Your task to perform on an android device: open app "Facebook Messenger" (install if not already installed) Image 0: 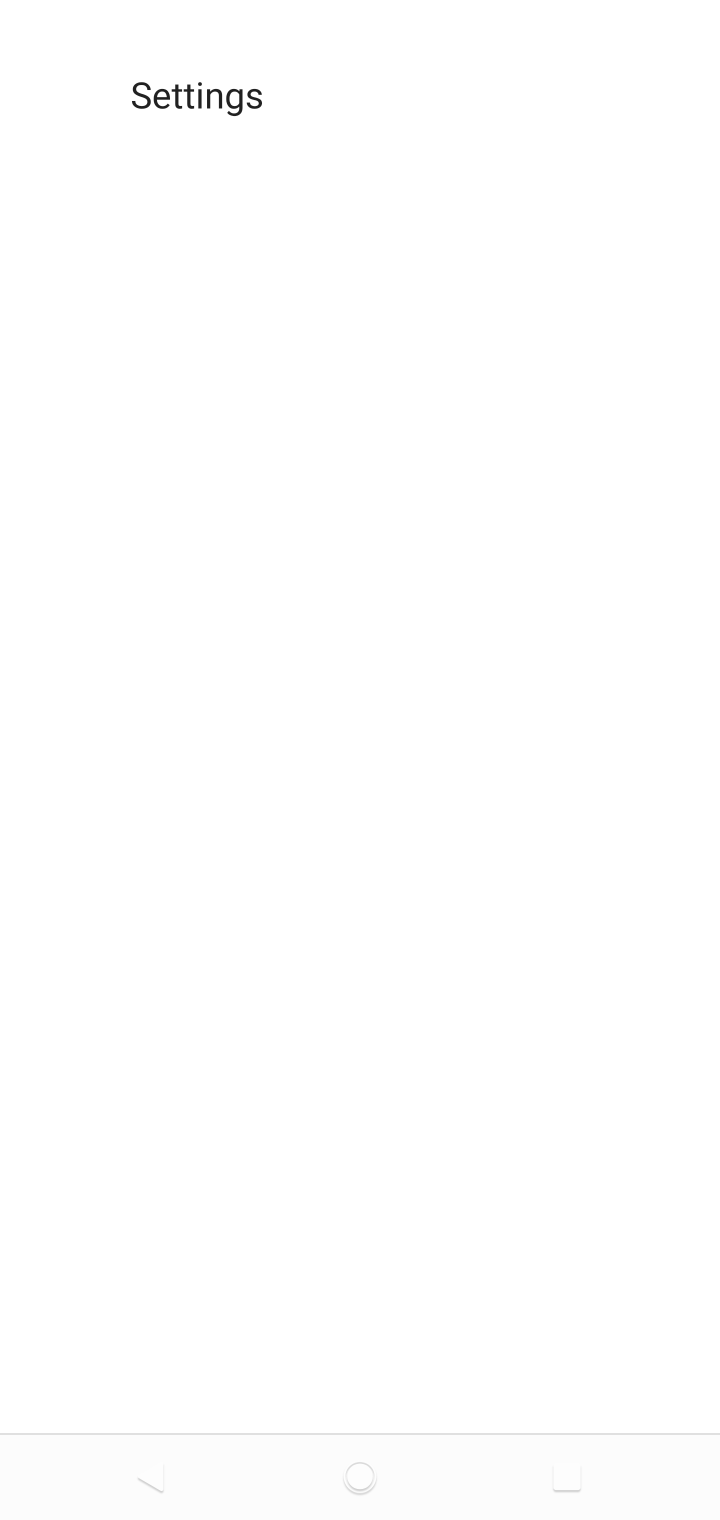
Step 0: press home button
Your task to perform on an android device: open app "Facebook Messenger" (install if not already installed) Image 1: 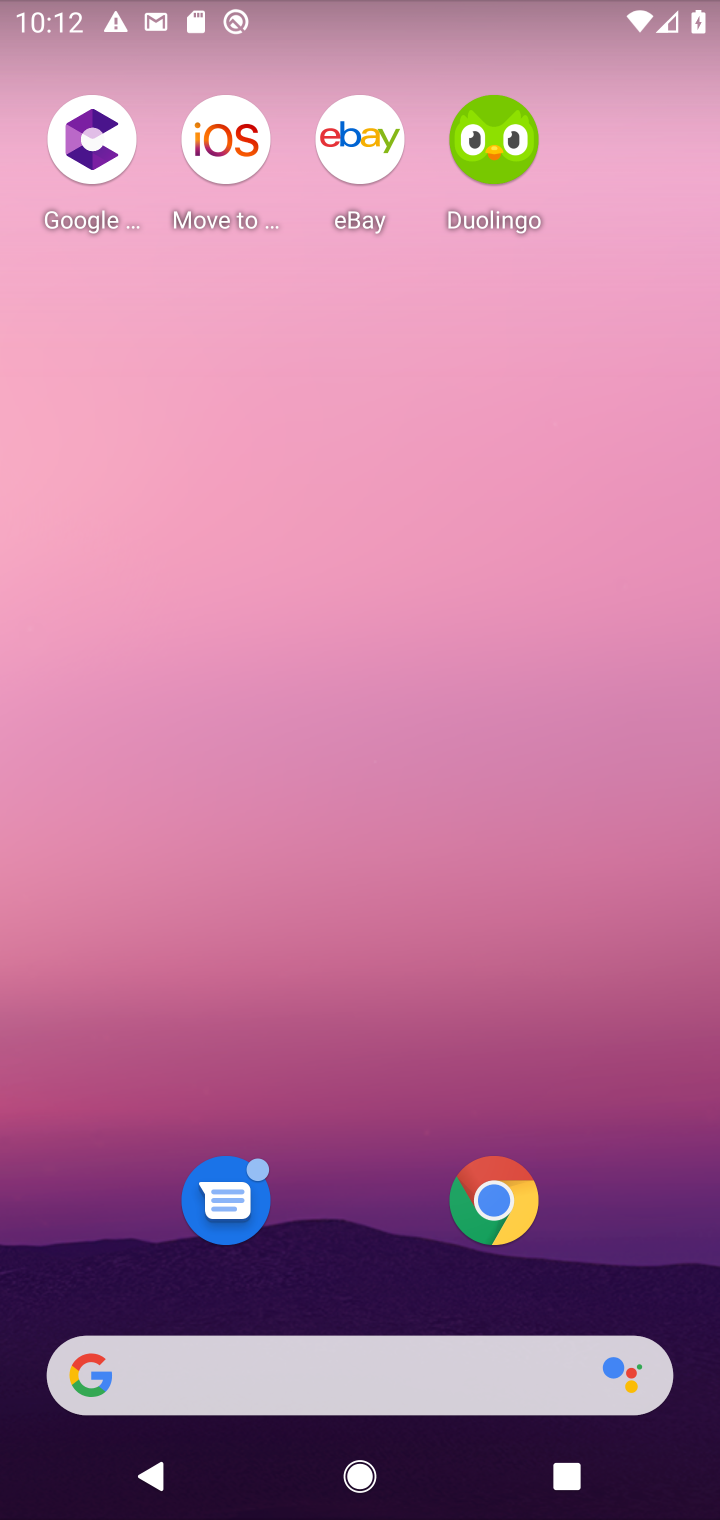
Step 1: press home button
Your task to perform on an android device: open app "Facebook Messenger" (install if not already installed) Image 2: 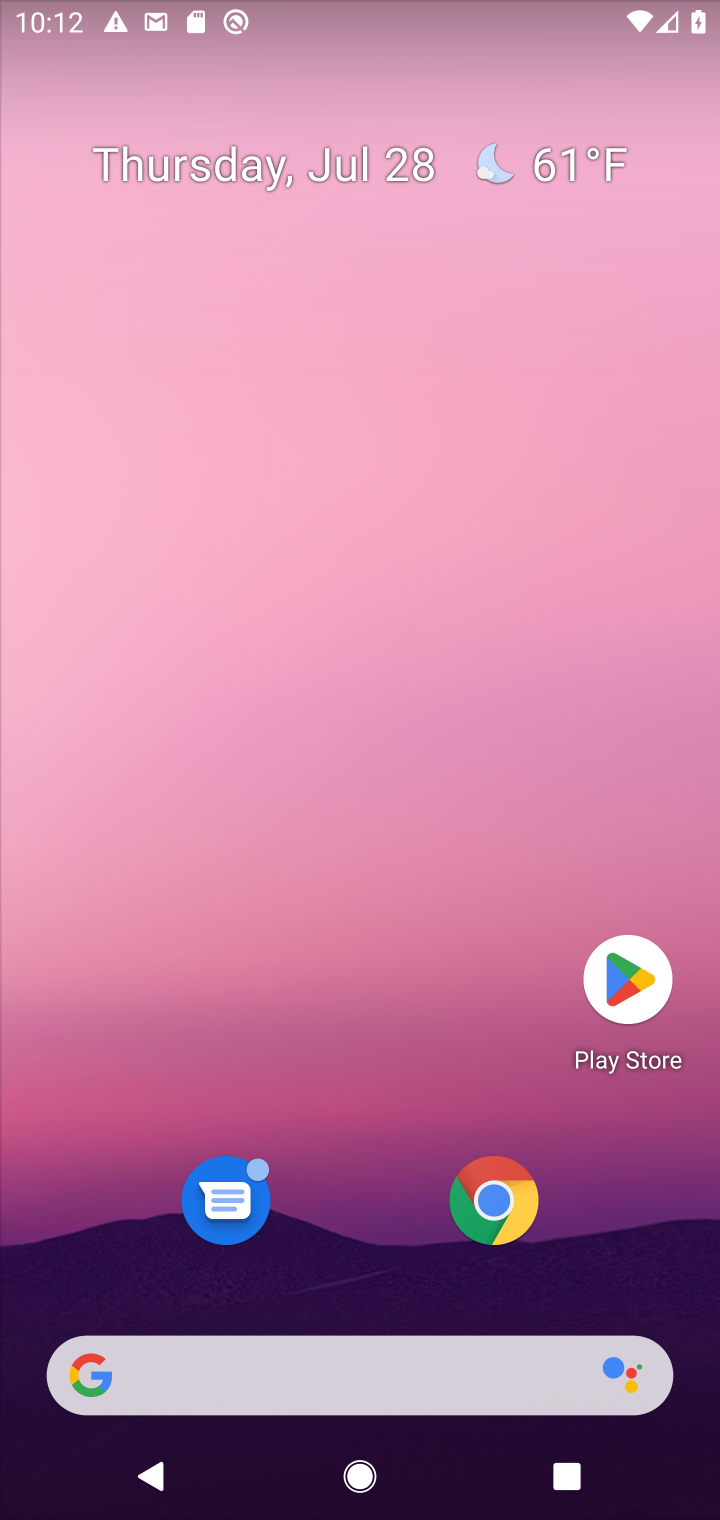
Step 2: click (619, 983)
Your task to perform on an android device: open app "Facebook Messenger" (install if not already installed) Image 3: 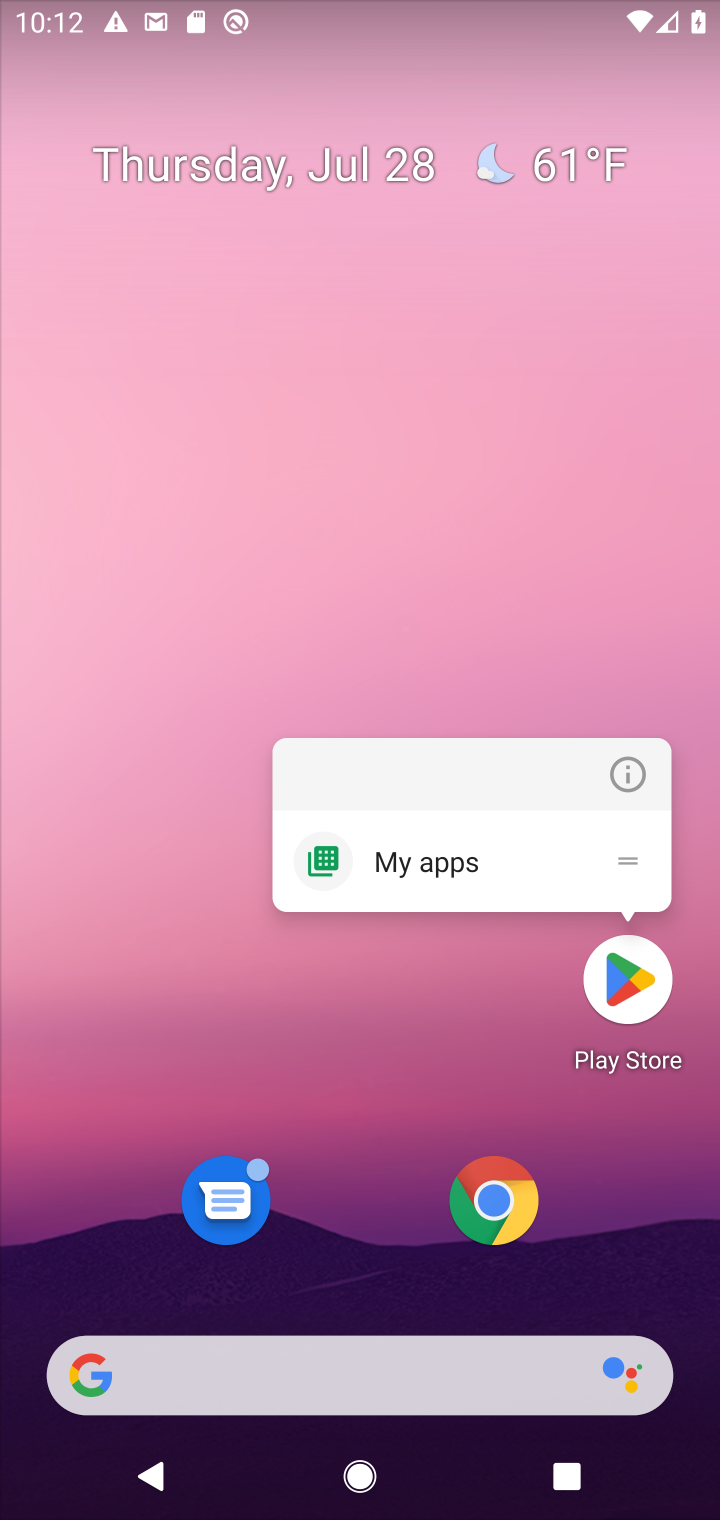
Step 3: click (639, 989)
Your task to perform on an android device: open app "Facebook Messenger" (install if not already installed) Image 4: 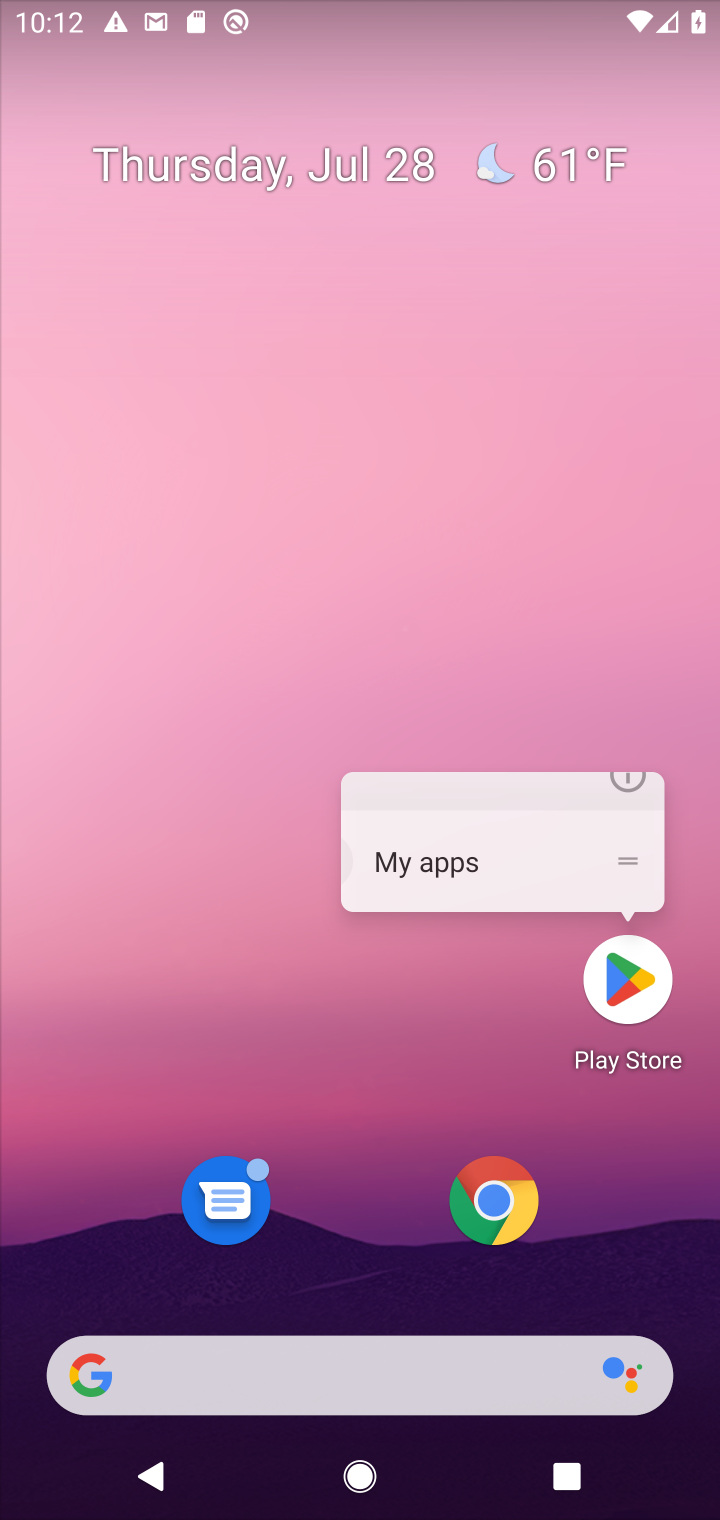
Step 4: click (639, 996)
Your task to perform on an android device: open app "Facebook Messenger" (install if not already installed) Image 5: 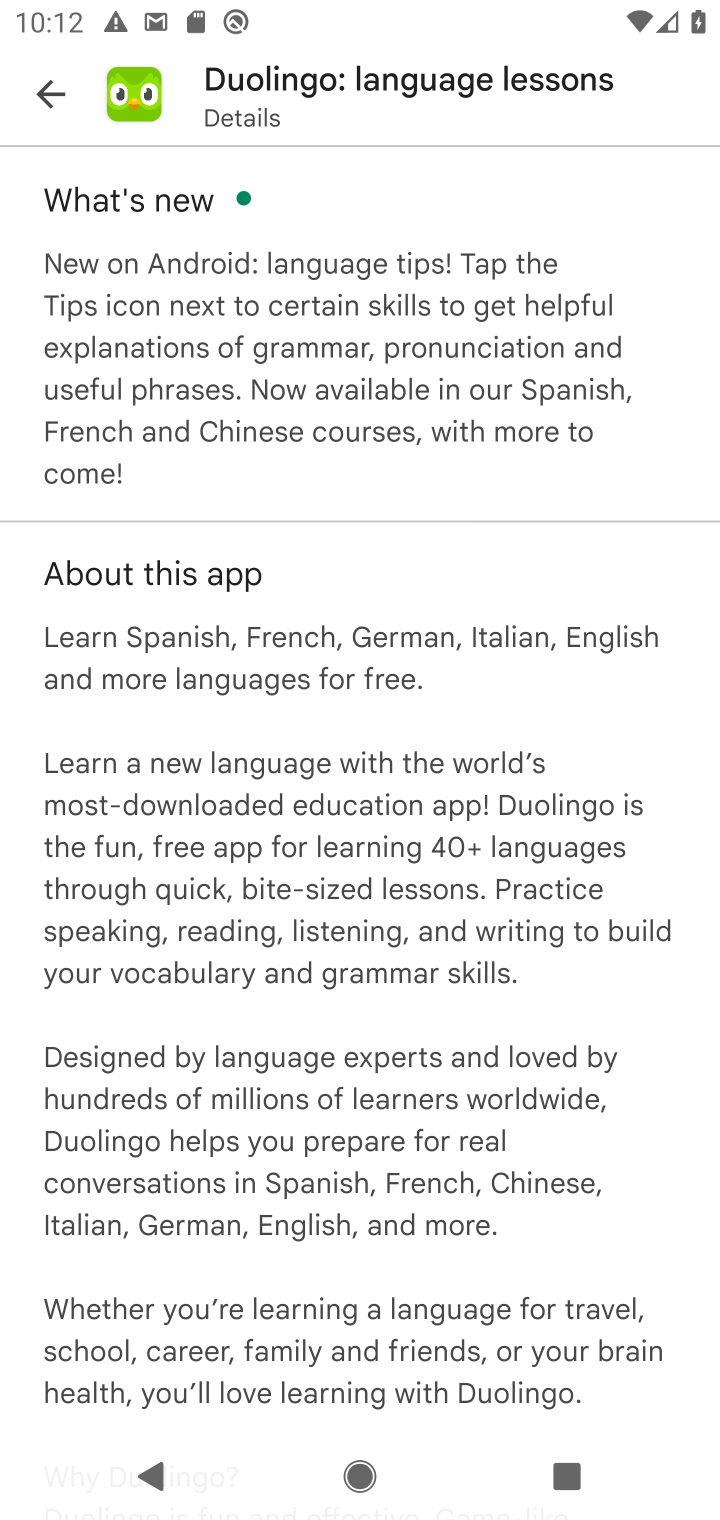
Step 5: click (34, 92)
Your task to perform on an android device: open app "Facebook Messenger" (install if not already installed) Image 6: 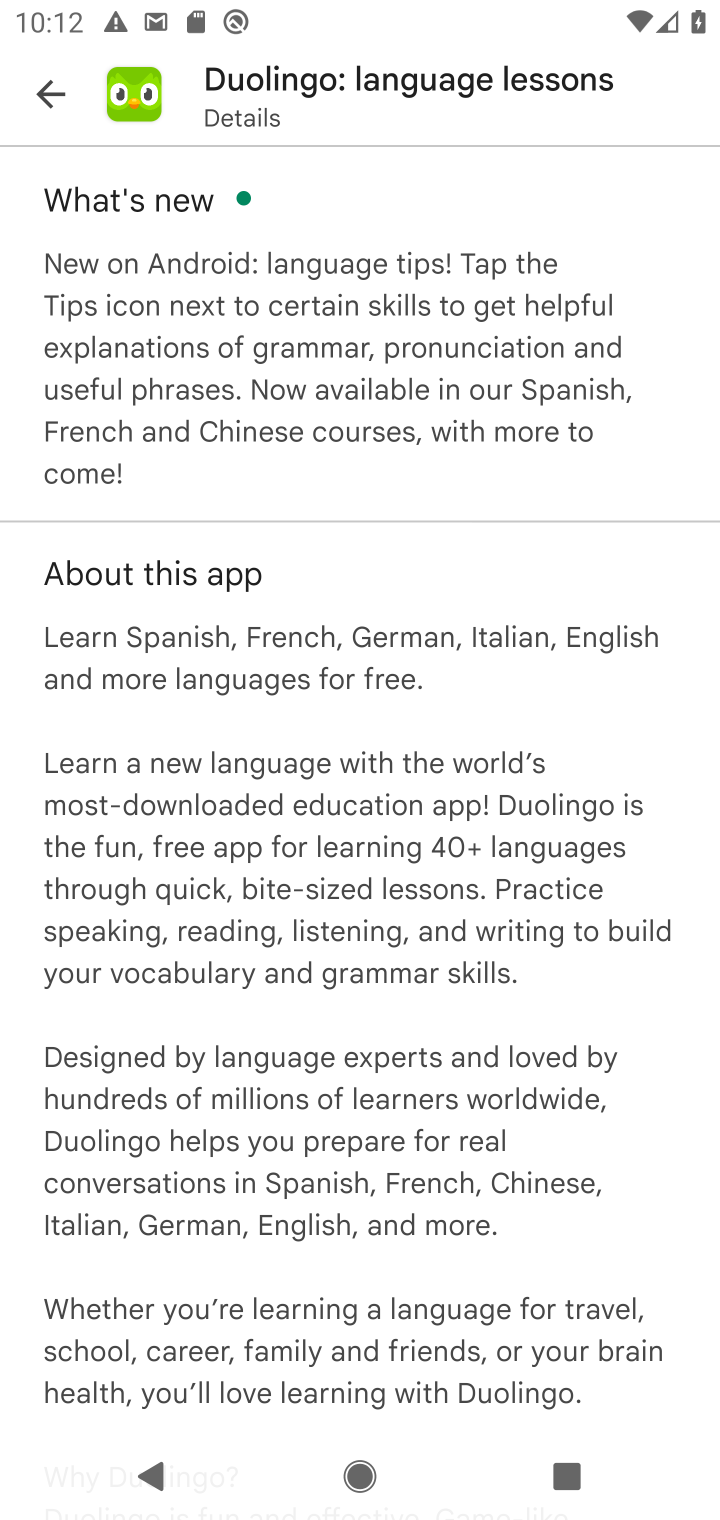
Step 6: click (48, 73)
Your task to perform on an android device: open app "Facebook Messenger" (install if not already installed) Image 7: 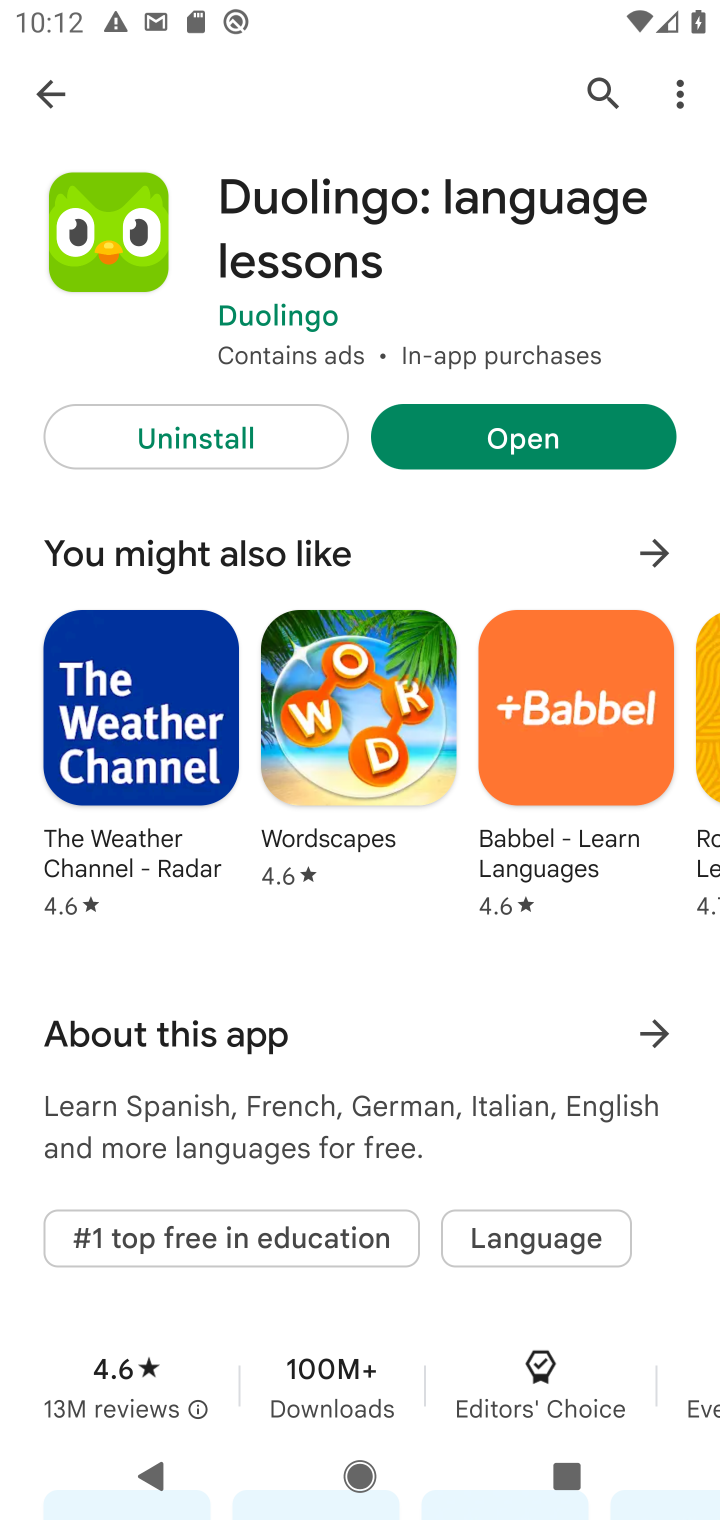
Step 7: click (597, 87)
Your task to perform on an android device: open app "Facebook Messenger" (install if not already installed) Image 8: 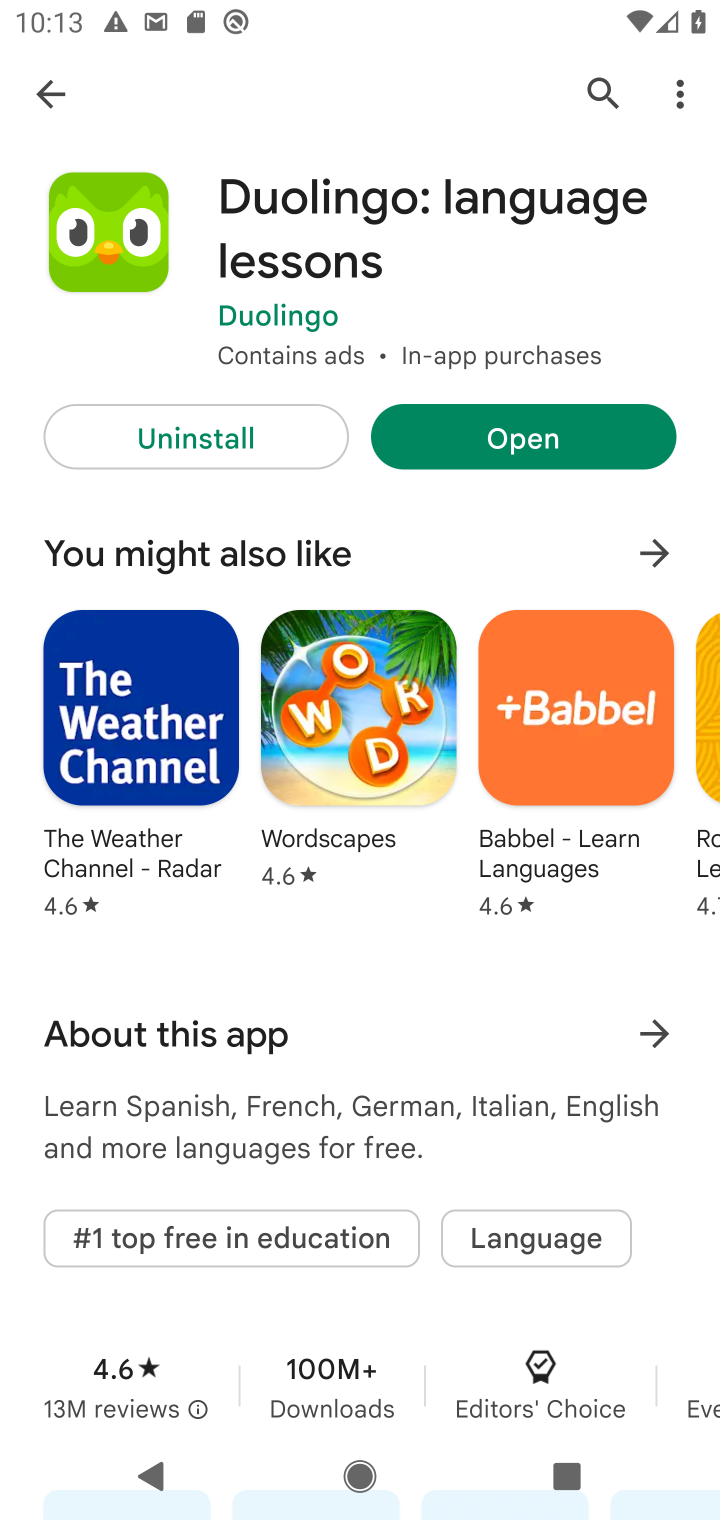
Step 8: click (582, 74)
Your task to perform on an android device: open app "Facebook Messenger" (install if not already installed) Image 9: 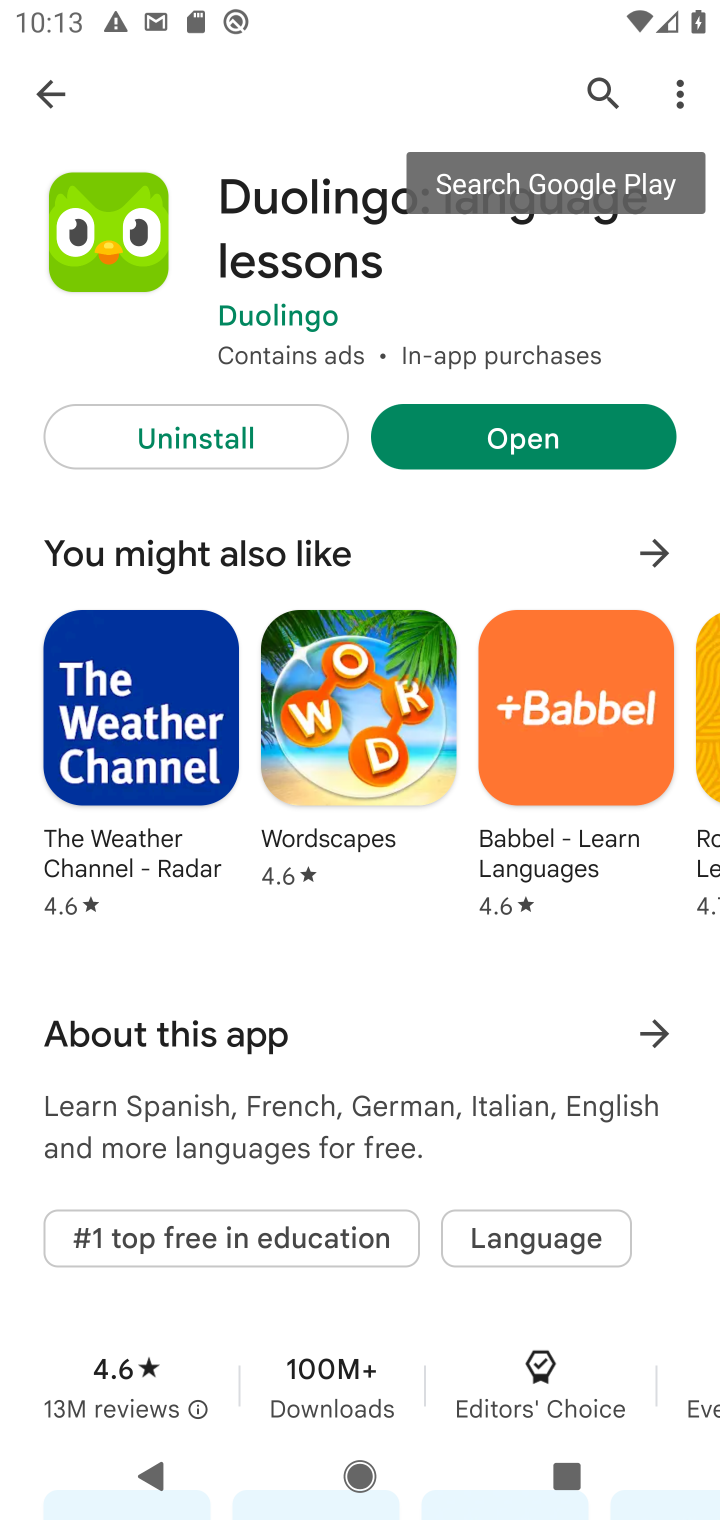
Step 9: click (594, 85)
Your task to perform on an android device: open app "Facebook Messenger" (install if not already installed) Image 10: 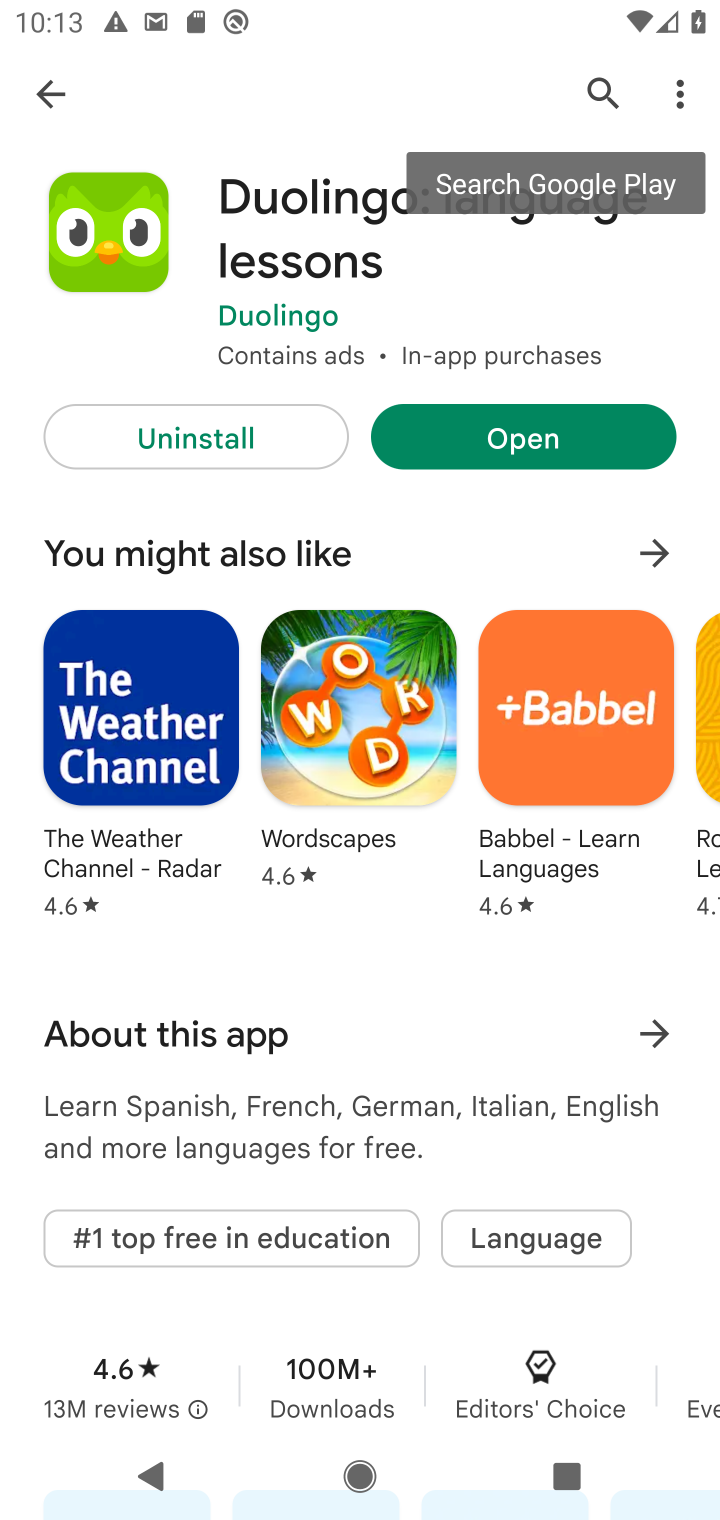
Step 10: click (101, 92)
Your task to perform on an android device: open app "Facebook Messenger" (install if not already installed) Image 11: 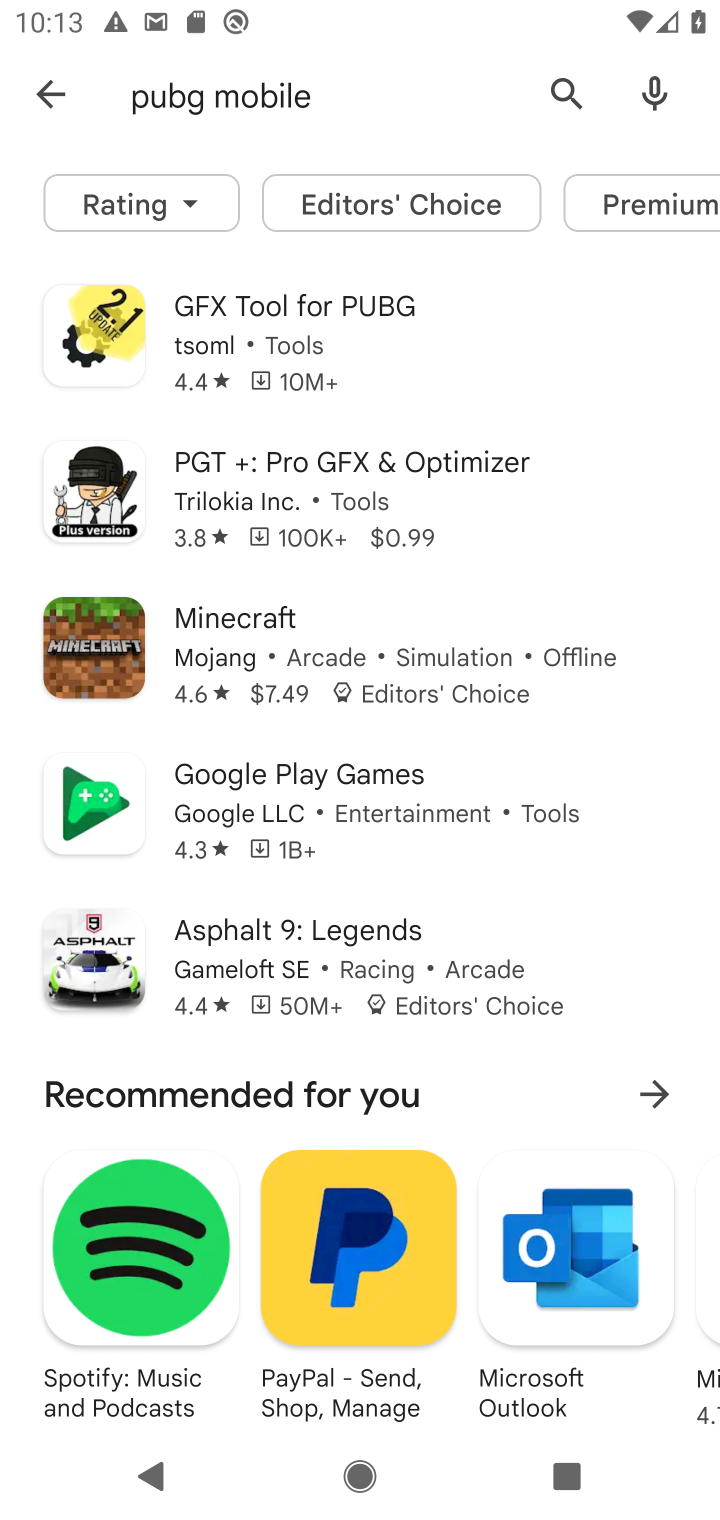
Step 11: click (59, 94)
Your task to perform on an android device: open app "Facebook Messenger" (install if not already installed) Image 12: 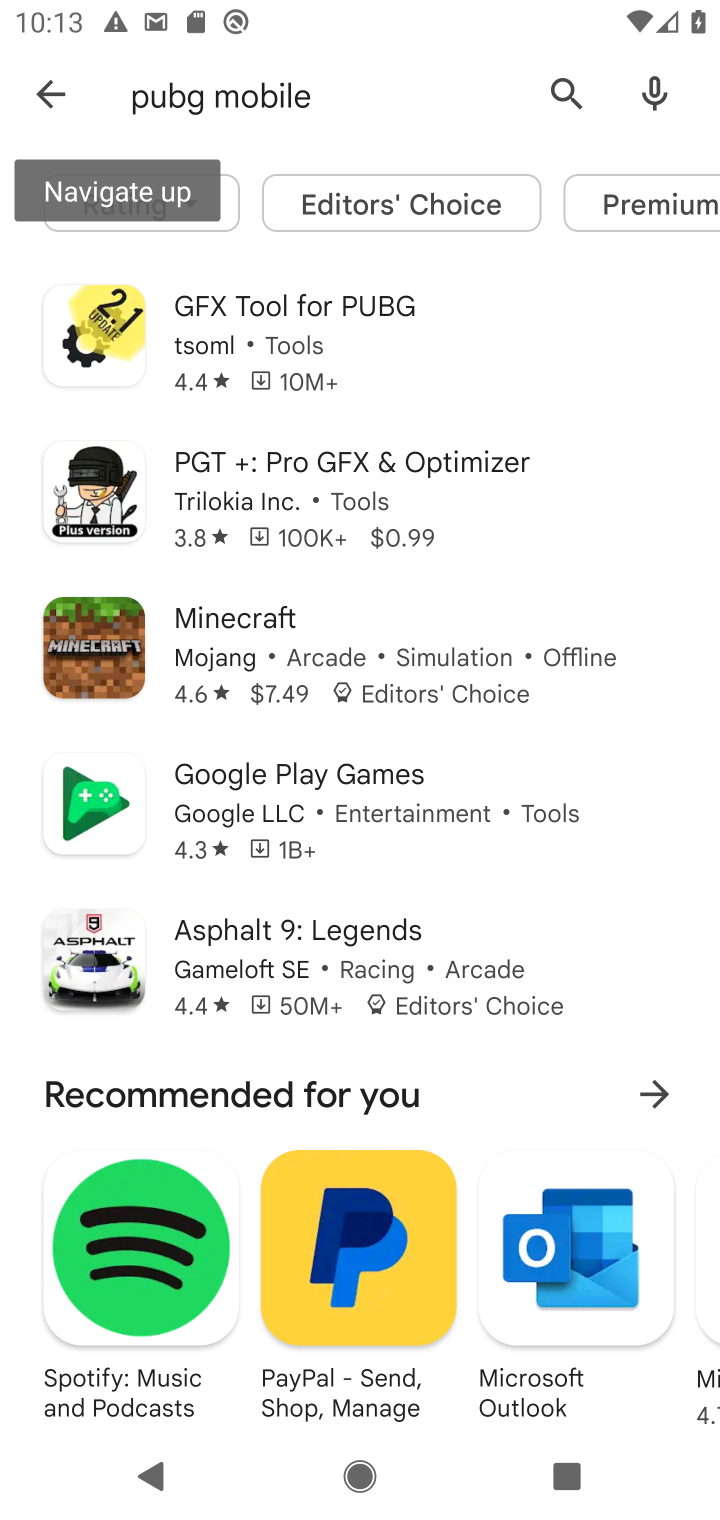
Step 12: click (558, 89)
Your task to perform on an android device: open app "Facebook Messenger" (install if not already installed) Image 13: 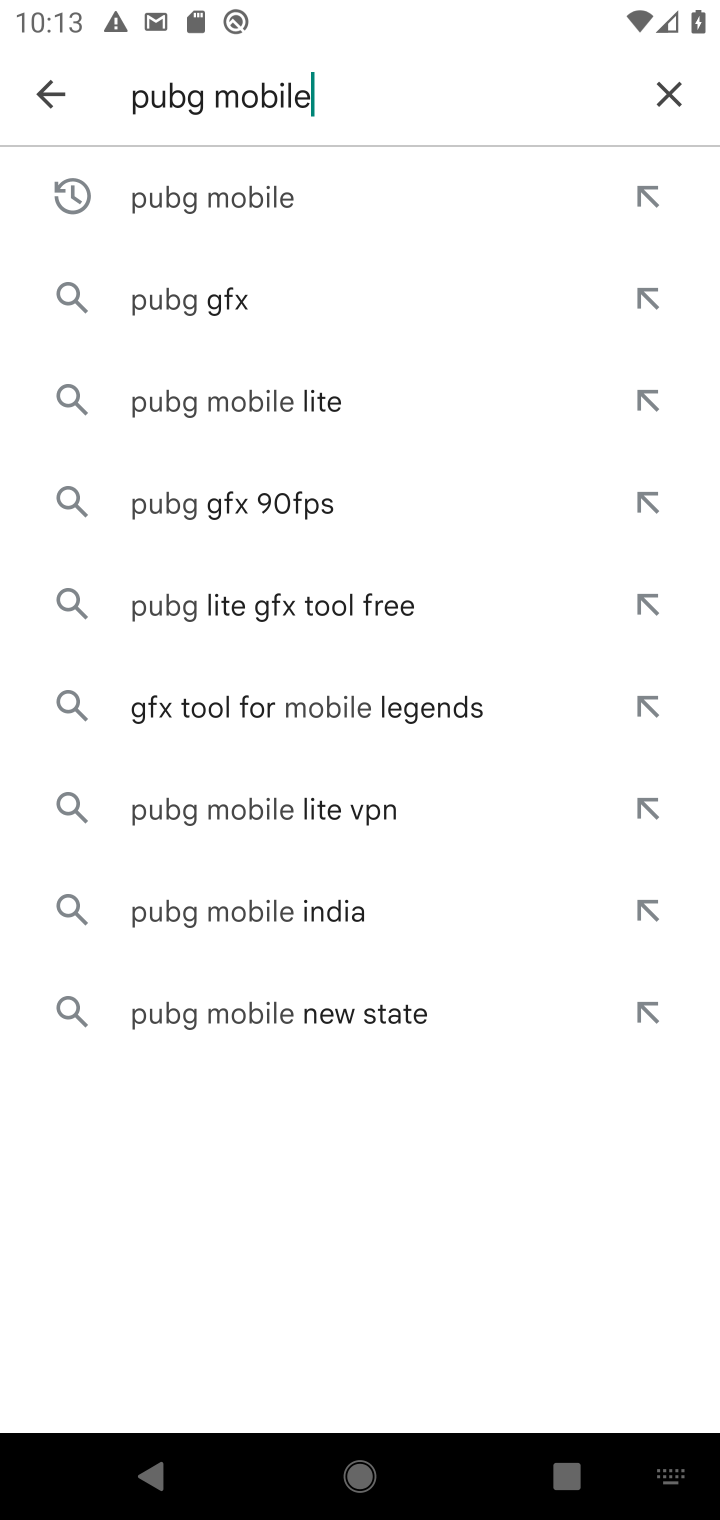
Step 13: click (670, 79)
Your task to perform on an android device: open app "Facebook Messenger" (install if not already installed) Image 14: 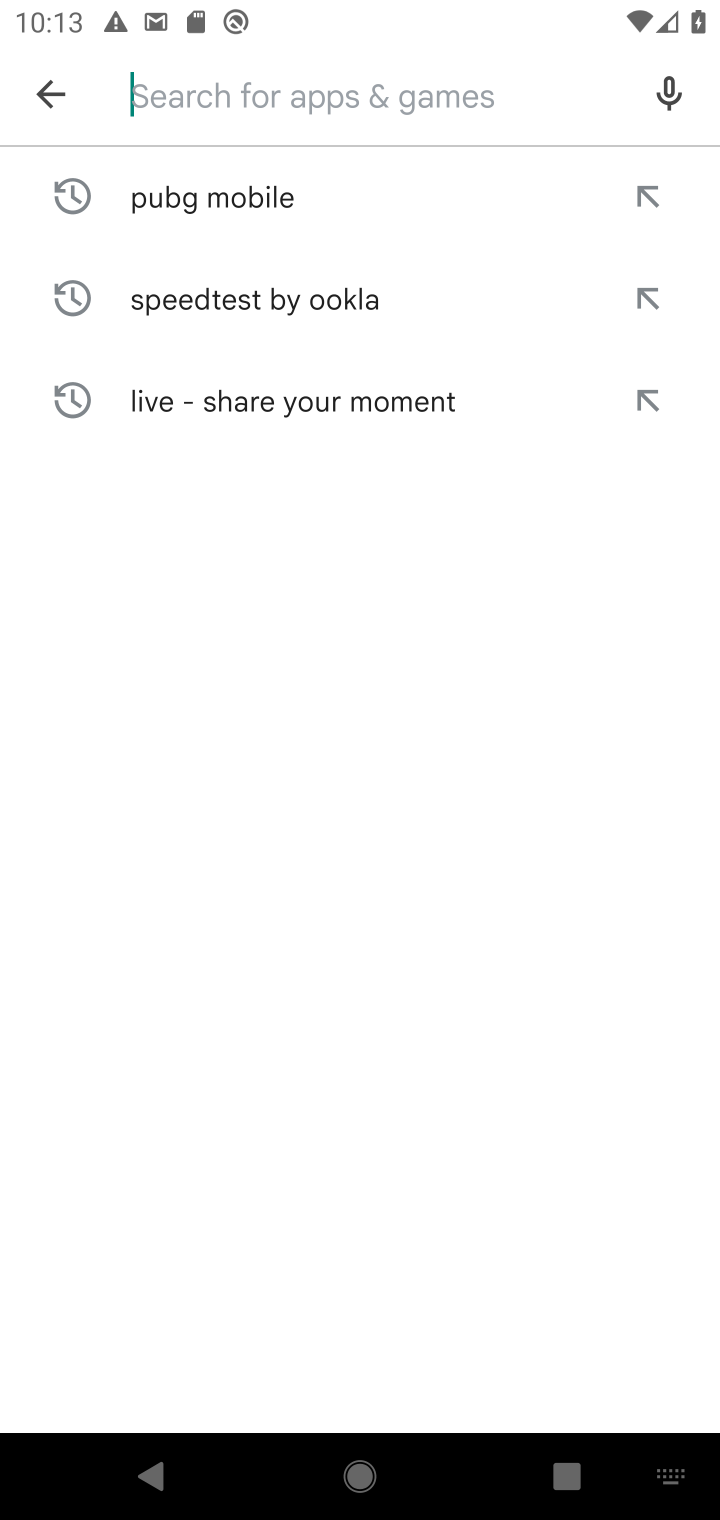
Step 14: type "Facebook Messenger"
Your task to perform on an android device: open app "Facebook Messenger" (install if not already installed) Image 15: 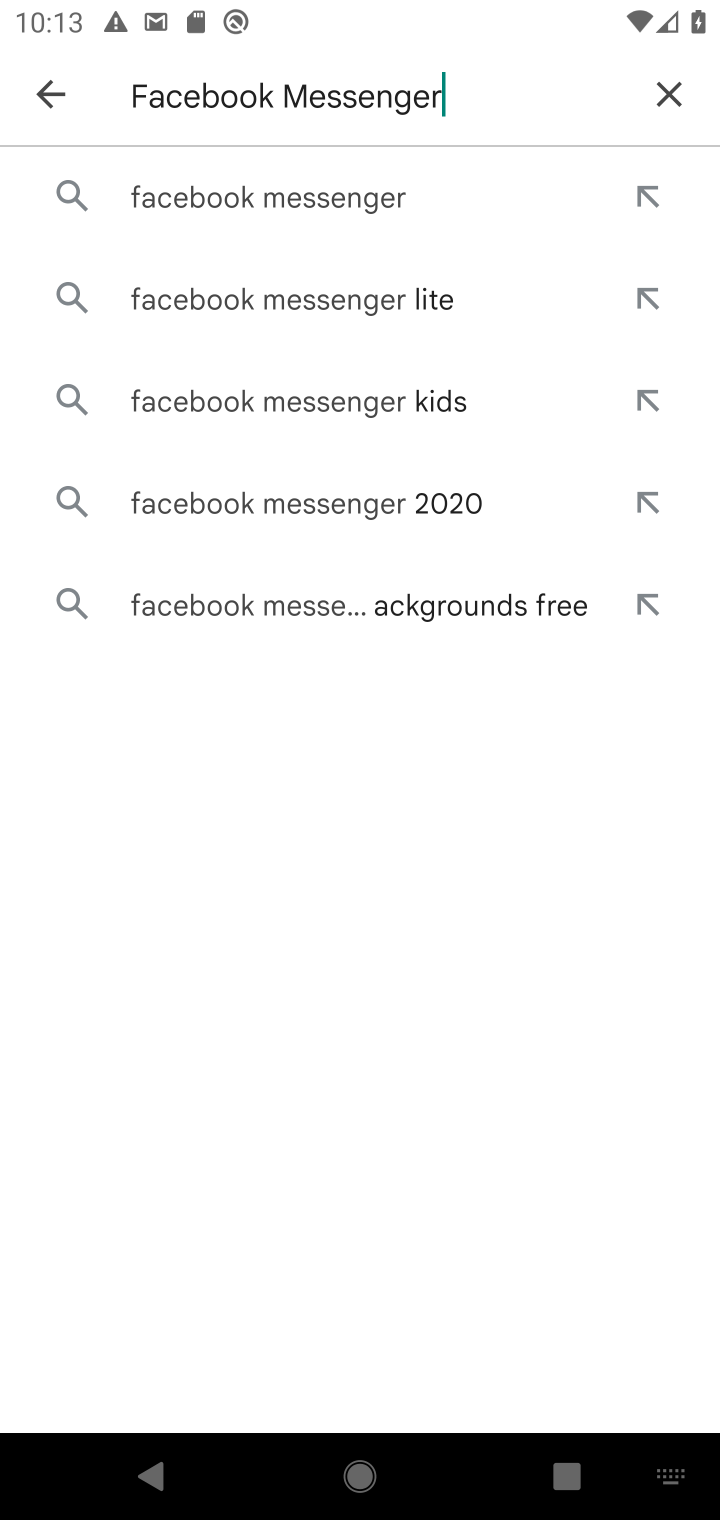
Step 15: click (290, 185)
Your task to perform on an android device: open app "Facebook Messenger" (install if not already installed) Image 16: 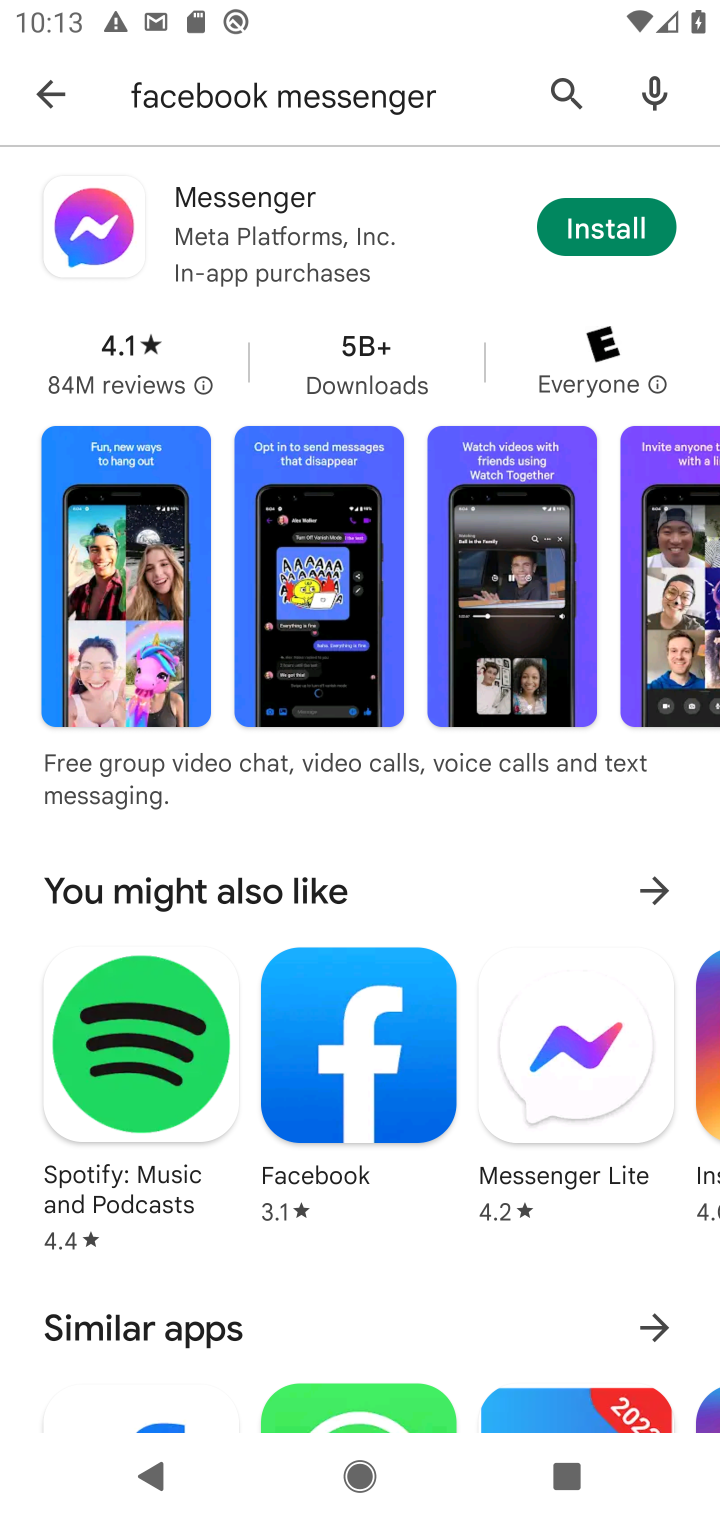
Step 16: click (632, 214)
Your task to perform on an android device: open app "Facebook Messenger" (install if not already installed) Image 17: 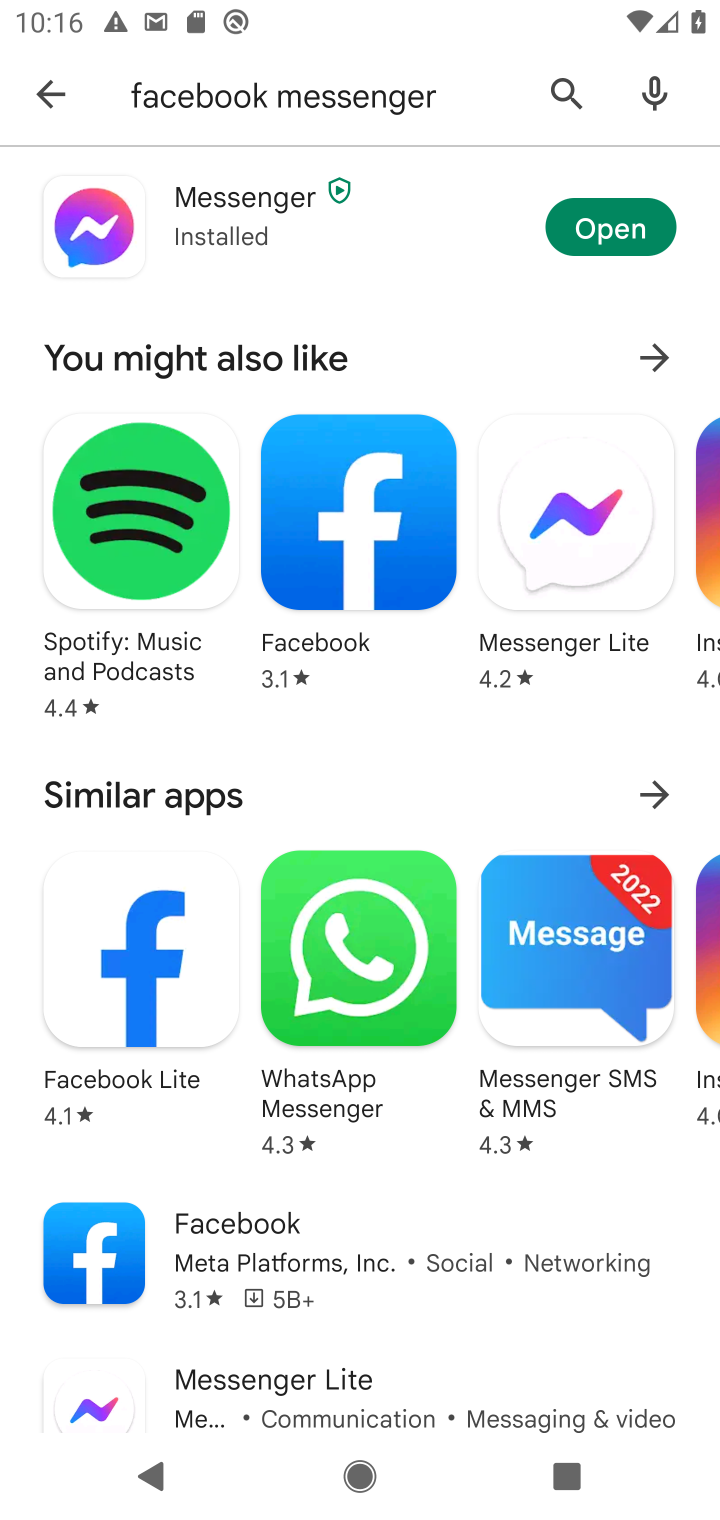
Step 17: click (629, 231)
Your task to perform on an android device: open app "Facebook Messenger" (install if not already installed) Image 18: 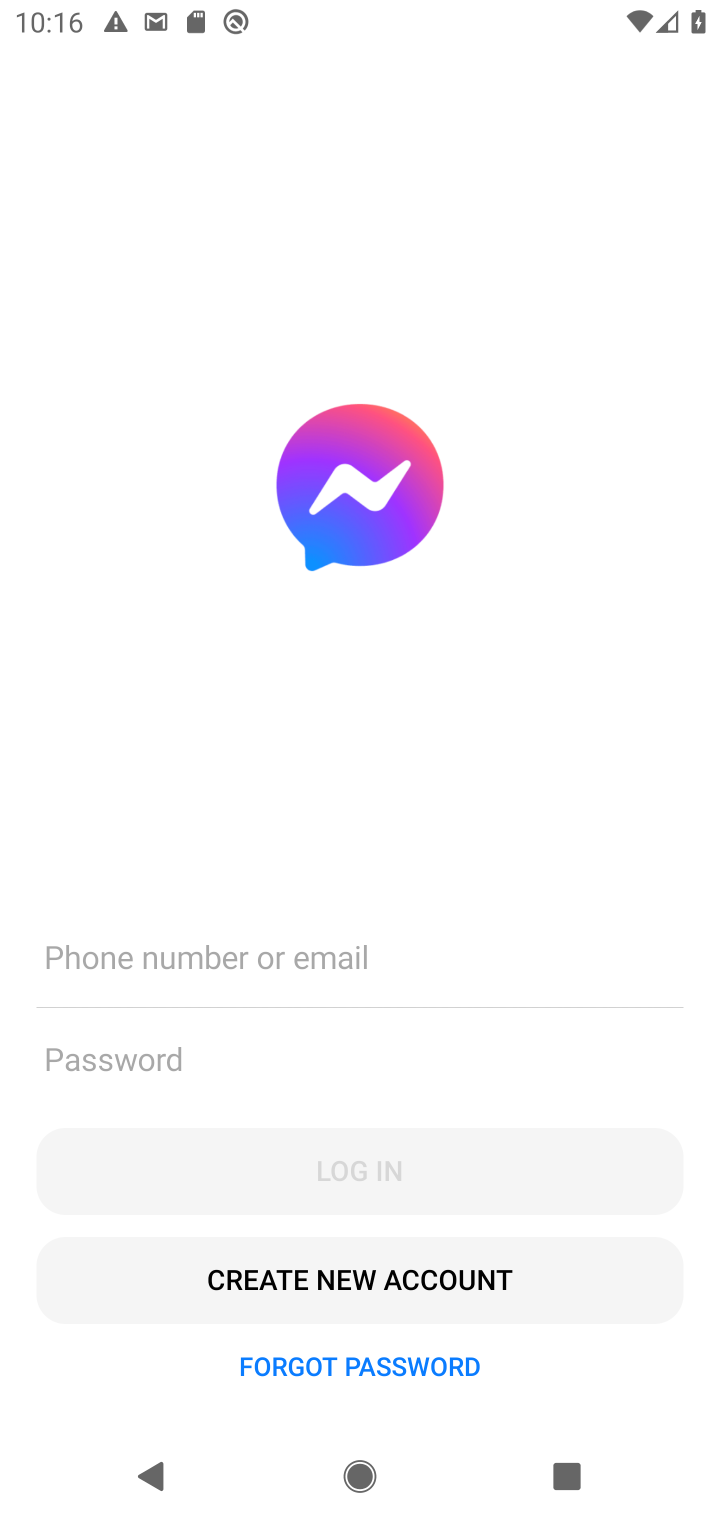
Step 18: task complete